Your task to perform on an android device: check battery use Image 0: 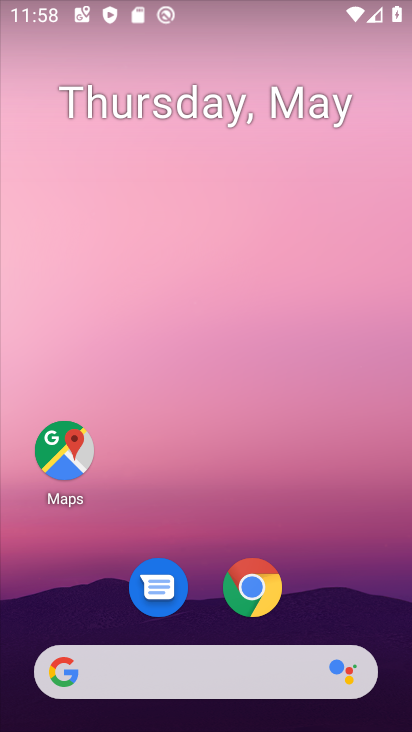
Step 0: drag from (137, 730) to (296, 89)
Your task to perform on an android device: check battery use Image 1: 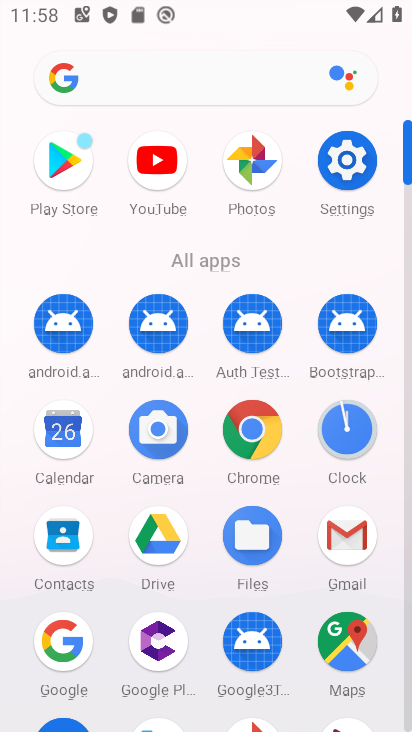
Step 1: click (333, 158)
Your task to perform on an android device: check battery use Image 2: 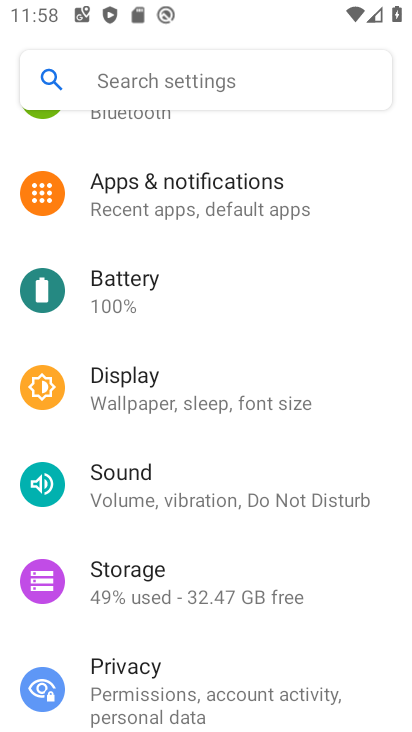
Step 2: click (257, 297)
Your task to perform on an android device: check battery use Image 3: 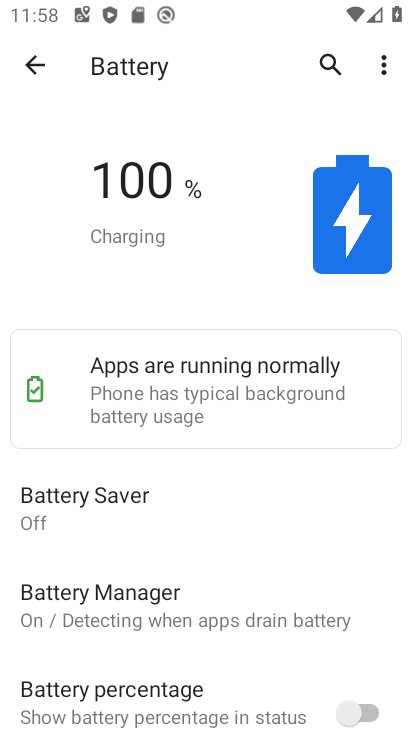
Step 3: task complete